Your task to perform on an android device: delete a single message in the gmail app Image 0: 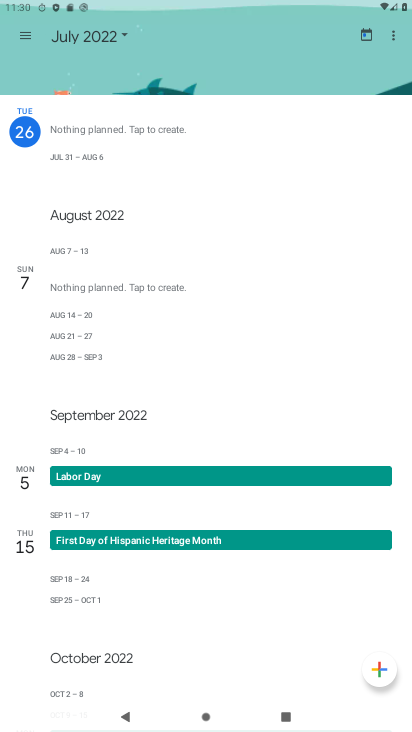
Step 0: press home button
Your task to perform on an android device: delete a single message in the gmail app Image 1: 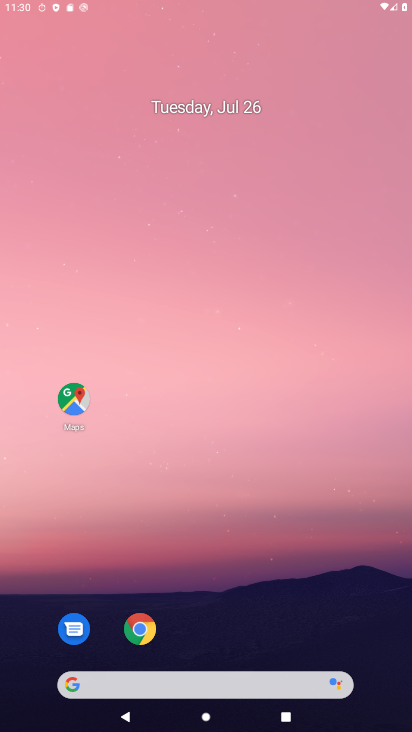
Step 1: drag from (384, 662) to (220, 47)
Your task to perform on an android device: delete a single message in the gmail app Image 2: 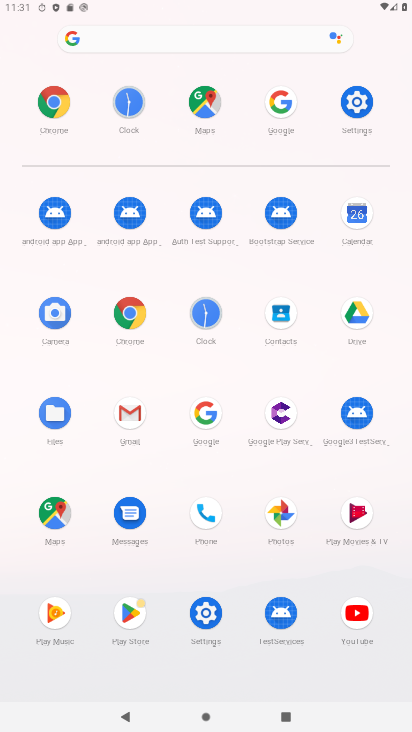
Step 2: click (124, 424)
Your task to perform on an android device: delete a single message in the gmail app Image 3: 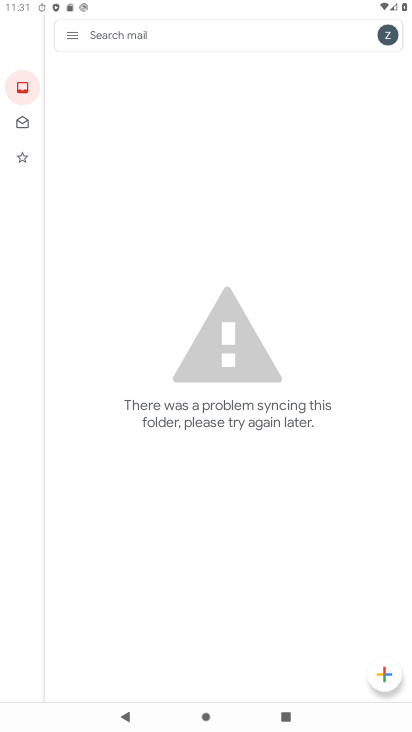
Step 3: task complete